Your task to perform on an android device: set the stopwatch Image 0: 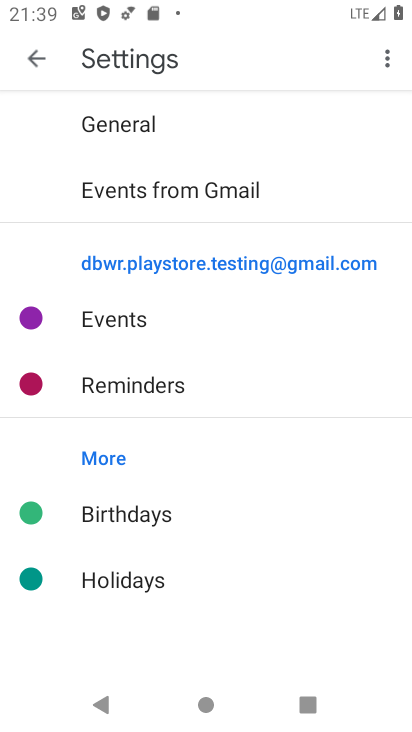
Step 0: press home button
Your task to perform on an android device: set the stopwatch Image 1: 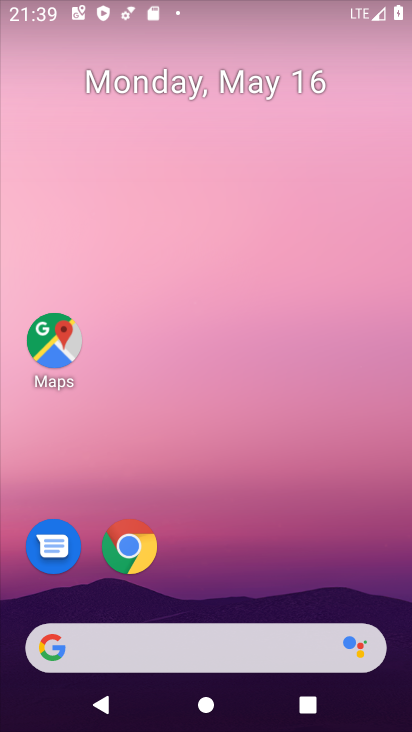
Step 1: drag from (271, 662) to (272, 188)
Your task to perform on an android device: set the stopwatch Image 2: 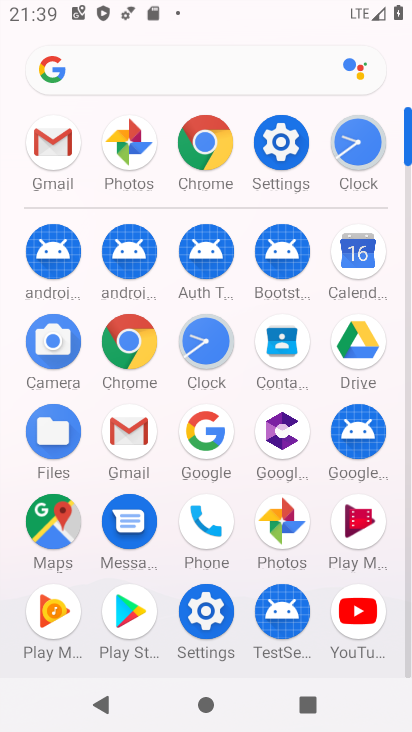
Step 2: click (216, 352)
Your task to perform on an android device: set the stopwatch Image 3: 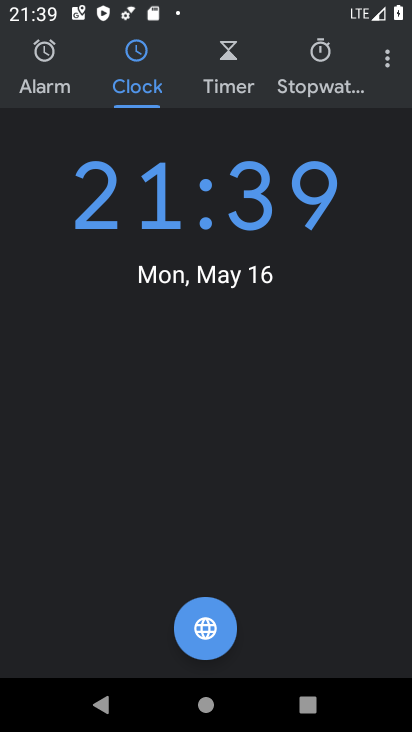
Step 3: click (324, 95)
Your task to perform on an android device: set the stopwatch Image 4: 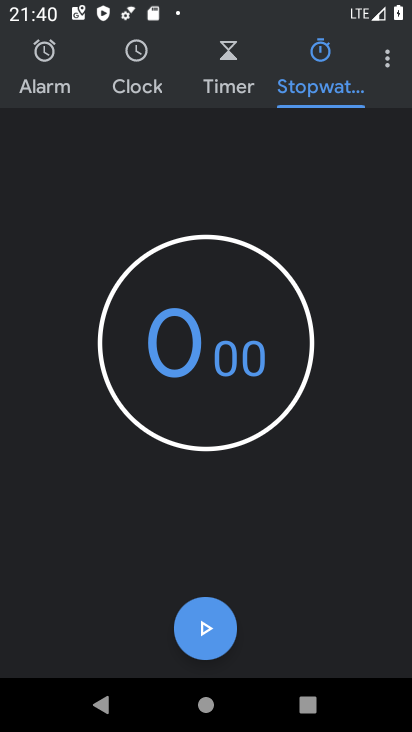
Step 4: click (209, 624)
Your task to perform on an android device: set the stopwatch Image 5: 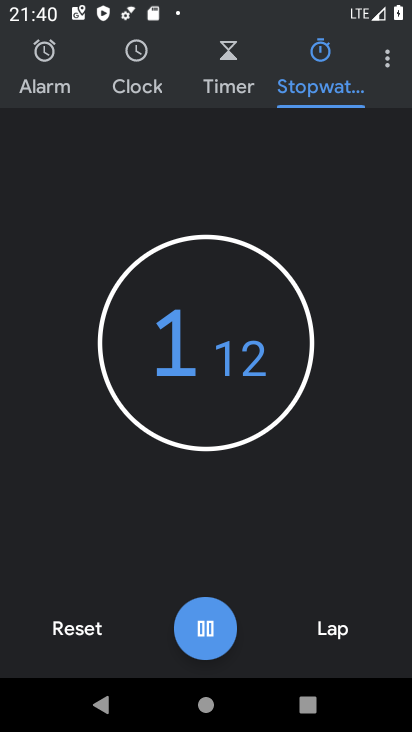
Step 5: click (213, 621)
Your task to perform on an android device: set the stopwatch Image 6: 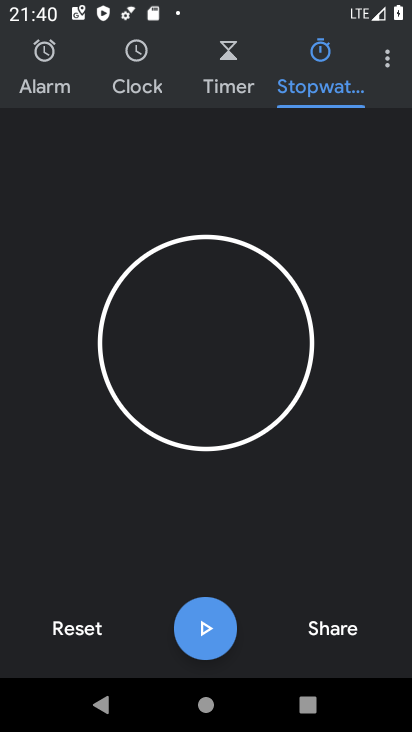
Step 6: task complete